Your task to perform on an android device: turn vacation reply on in the gmail app Image 0: 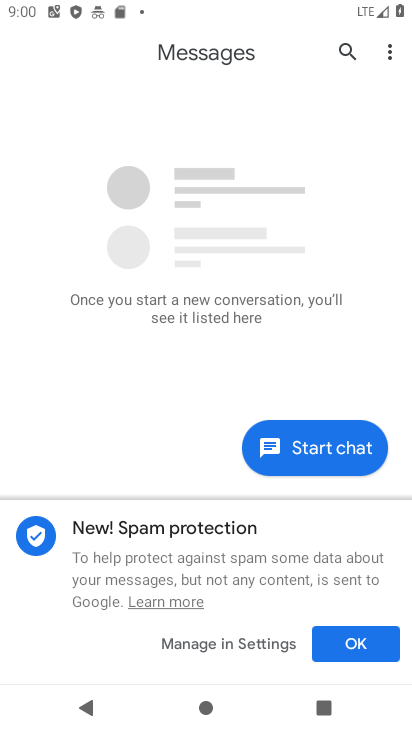
Step 0: press home button
Your task to perform on an android device: turn vacation reply on in the gmail app Image 1: 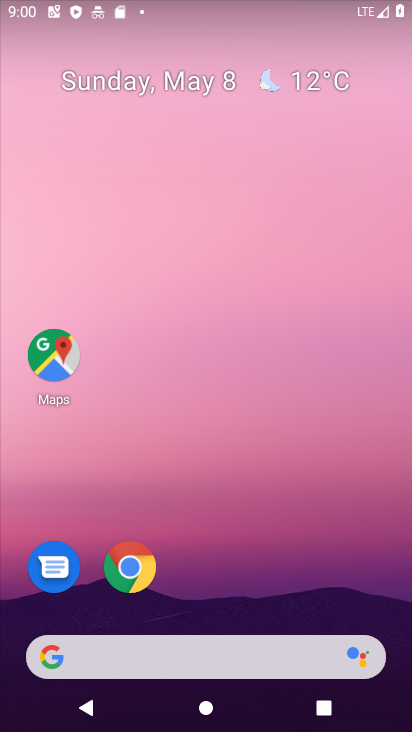
Step 1: drag from (196, 648) to (164, 153)
Your task to perform on an android device: turn vacation reply on in the gmail app Image 2: 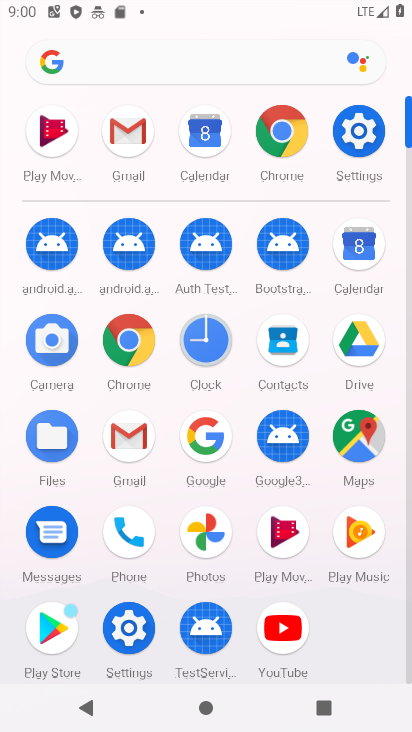
Step 2: click (133, 447)
Your task to perform on an android device: turn vacation reply on in the gmail app Image 3: 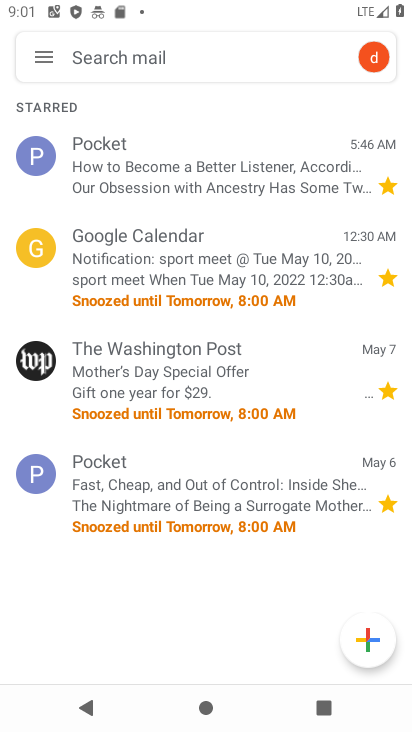
Step 3: click (53, 65)
Your task to perform on an android device: turn vacation reply on in the gmail app Image 4: 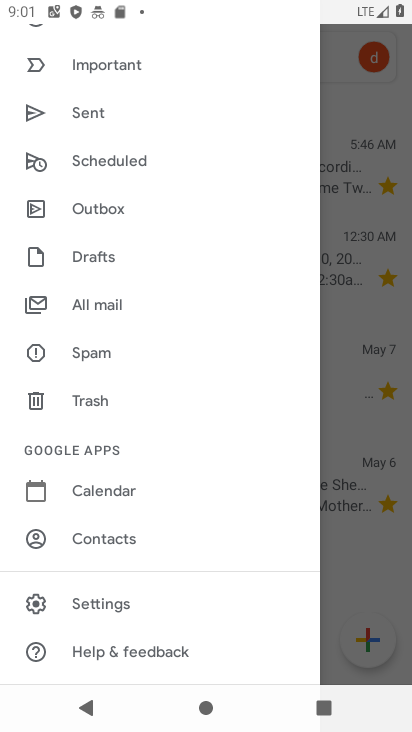
Step 4: click (94, 594)
Your task to perform on an android device: turn vacation reply on in the gmail app Image 5: 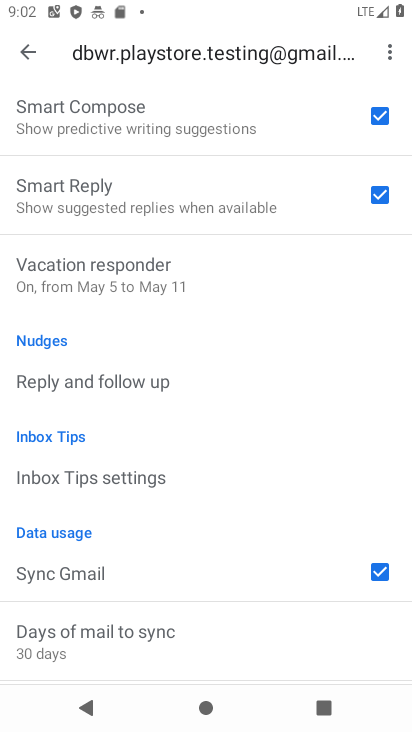
Step 5: drag from (109, 575) to (1, 302)
Your task to perform on an android device: turn vacation reply on in the gmail app Image 6: 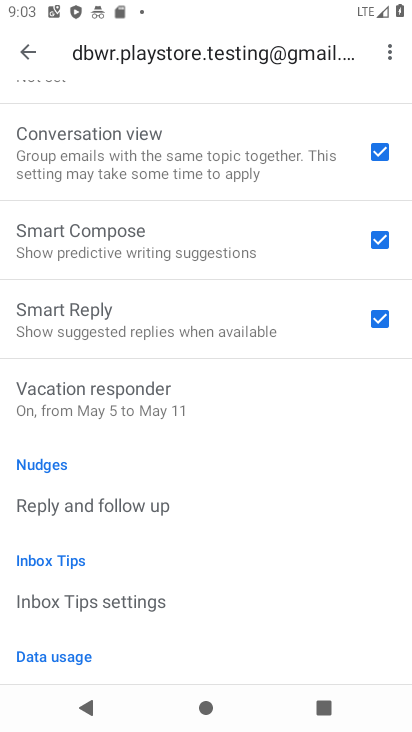
Step 6: click (176, 393)
Your task to perform on an android device: turn vacation reply on in the gmail app Image 7: 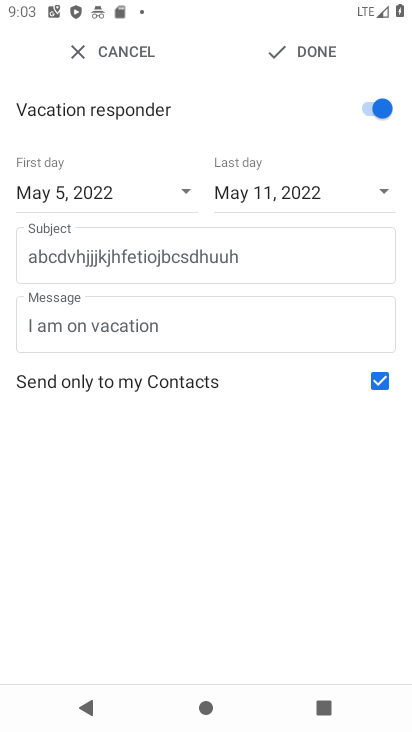
Step 7: task complete